Your task to perform on an android device: change text size in settings app Image 0: 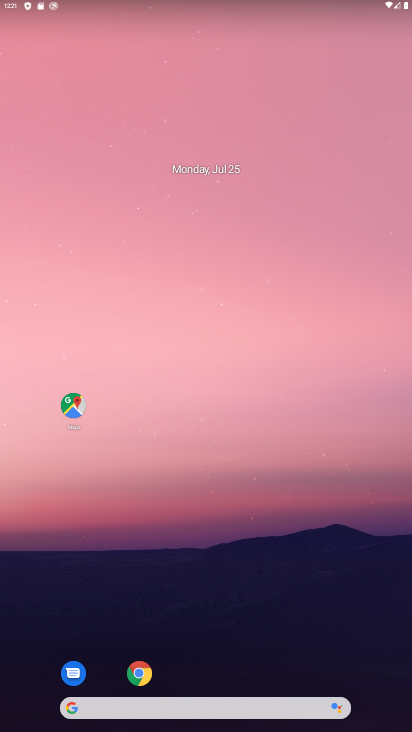
Step 0: drag from (184, 539) to (171, 205)
Your task to perform on an android device: change text size in settings app Image 1: 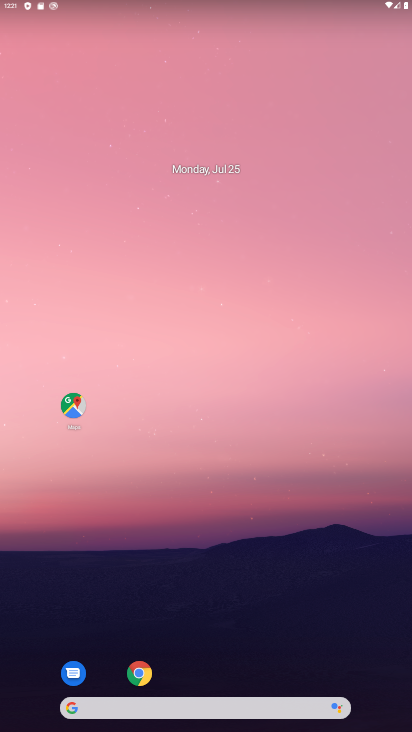
Step 1: drag from (174, 187) to (177, 136)
Your task to perform on an android device: change text size in settings app Image 2: 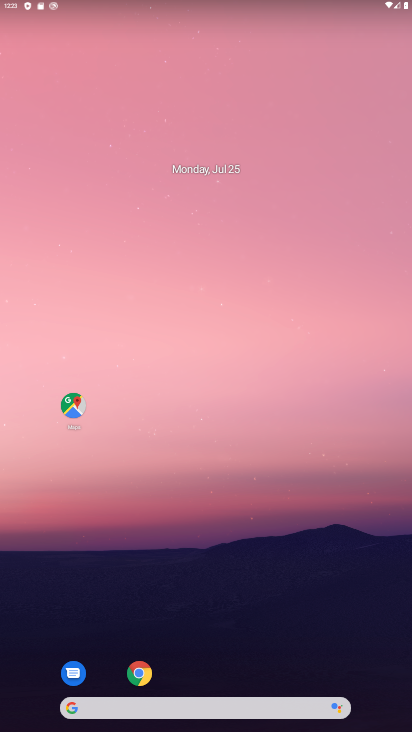
Step 2: drag from (215, 716) to (219, 170)
Your task to perform on an android device: change text size in settings app Image 3: 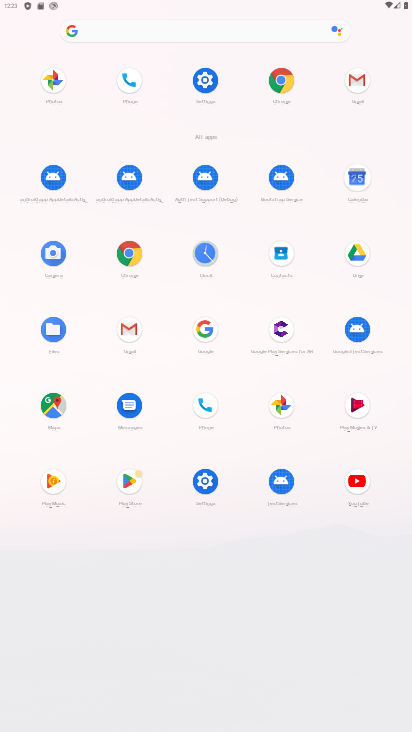
Step 3: click (193, 78)
Your task to perform on an android device: change text size in settings app Image 4: 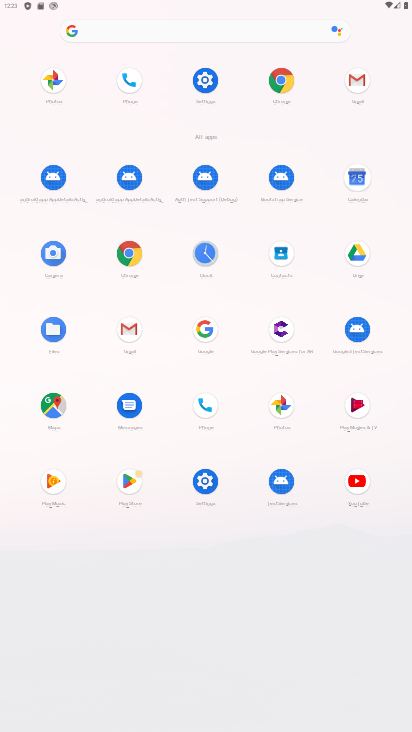
Step 4: click (193, 78)
Your task to perform on an android device: change text size in settings app Image 5: 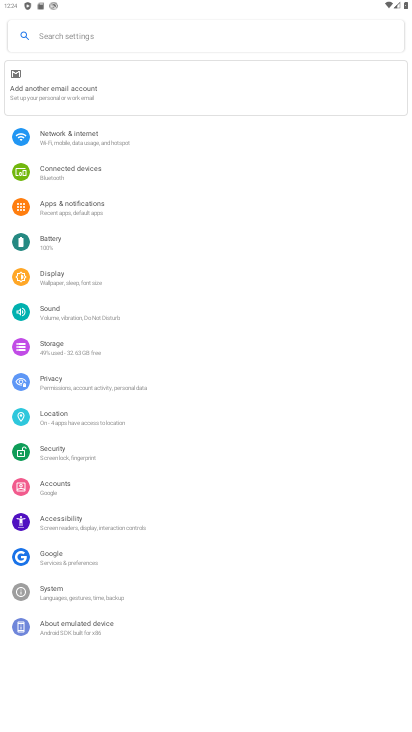
Step 5: click (116, 281)
Your task to perform on an android device: change text size in settings app Image 6: 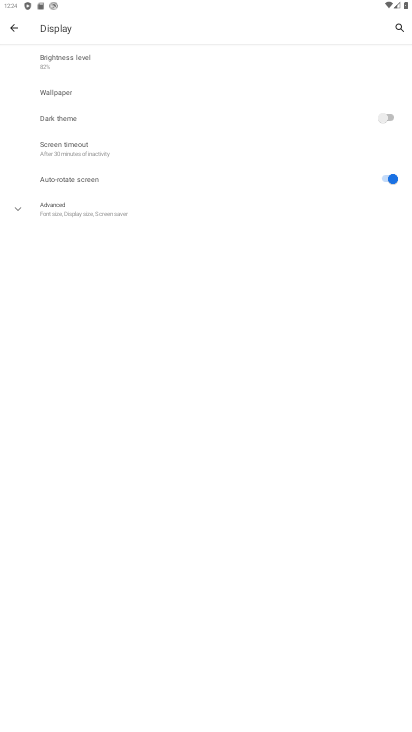
Step 6: click (138, 206)
Your task to perform on an android device: change text size in settings app Image 7: 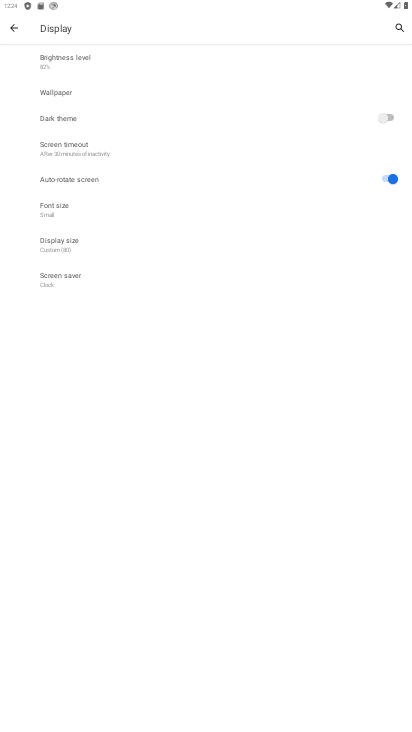
Step 7: click (78, 217)
Your task to perform on an android device: change text size in settings app Image 8: 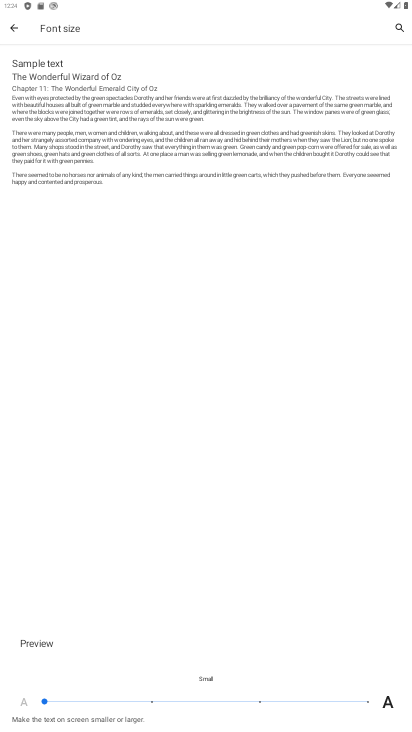
Step 8: click (260, 695)
Your task to perform on an android device: change text size in settings app Image 9: 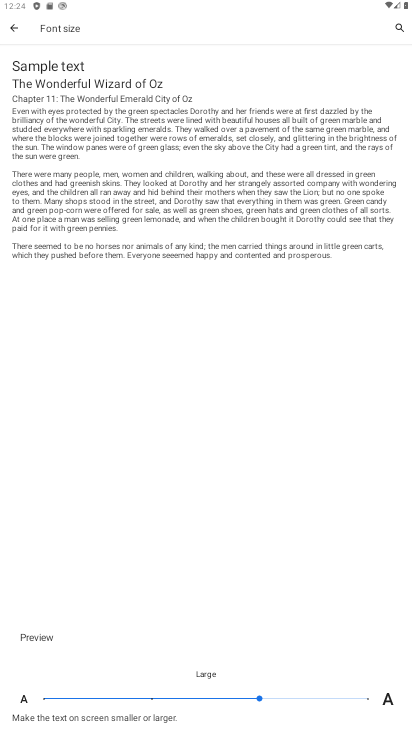
Step 9: task complete